Your task to perform on an android device: Go to Yahoo.com Image 0: 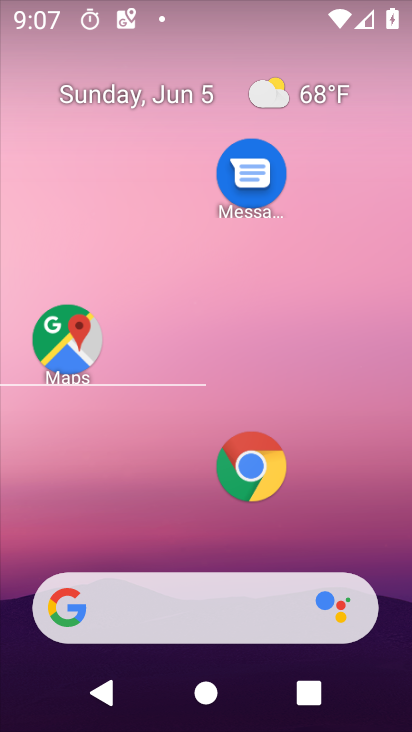
Step 0: click (296, 53)
Your task to perform on an android device: Go to Yahoo.com Image 1: 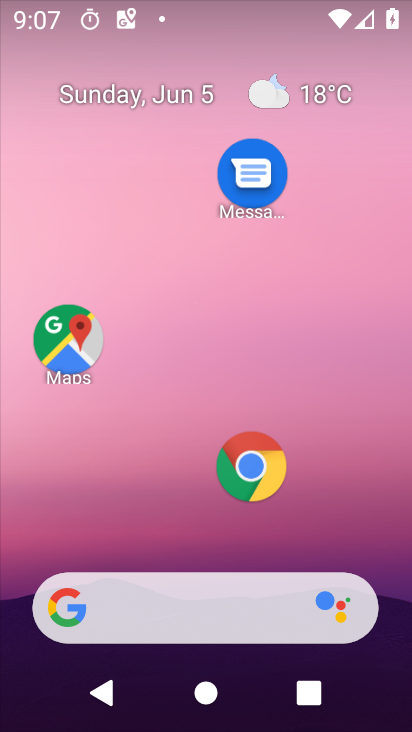
Step 1: drag from (195, 562) to (210, 145)
Your task to perform on an android device: Go to Yahoo.com Image 2: 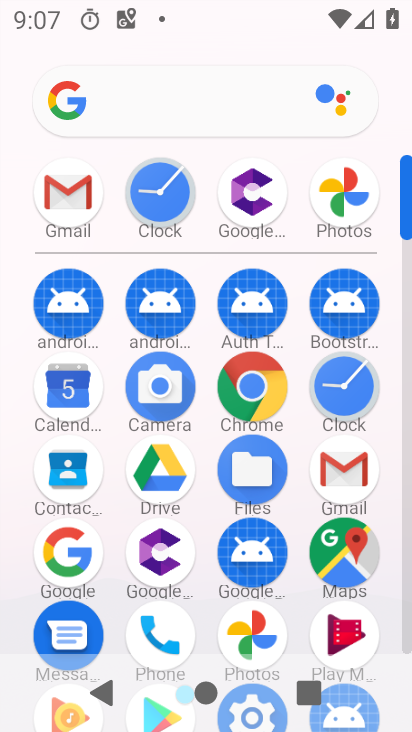
Step 2: click (219, 100)
Your task to perform on an android device: Go to Yahoo.com Image 3: 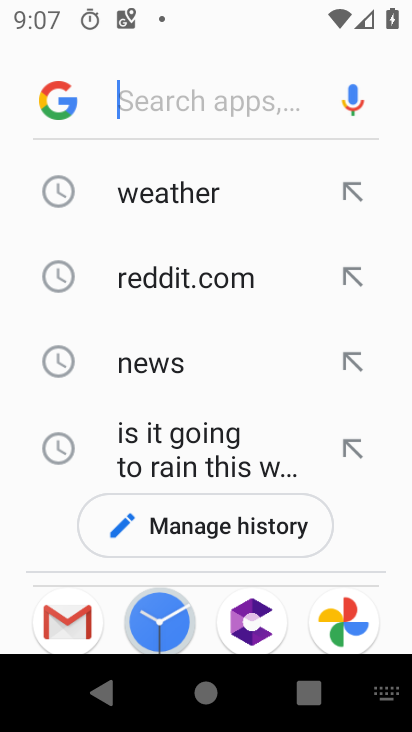
Step 3: click (169, 100)
Your task to perform on an android device: Go to Yahoo.com Image 4: 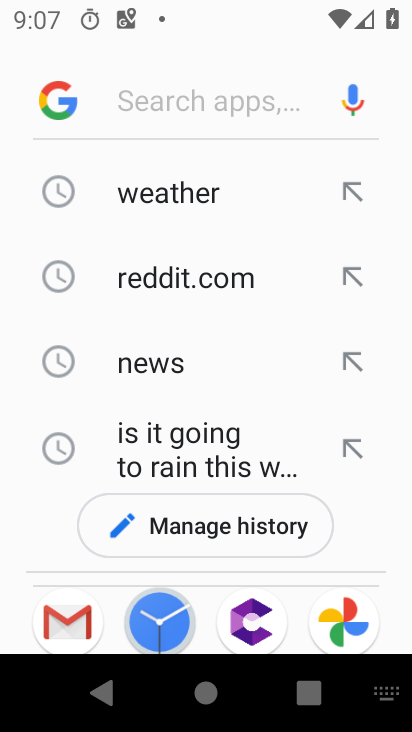
Step 4: type "Yahoo.com"
Your task to perform on an android device: Go to Yahoo.com Image 5: 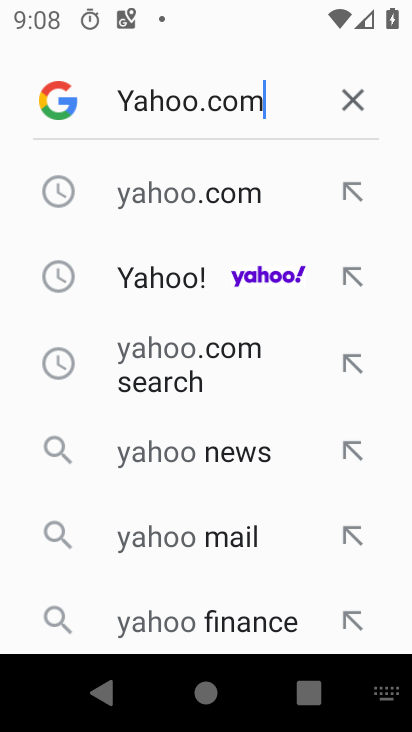
Step 5: type ""
Your task to perform on an android device: Go to Yahoo.com Image 6: 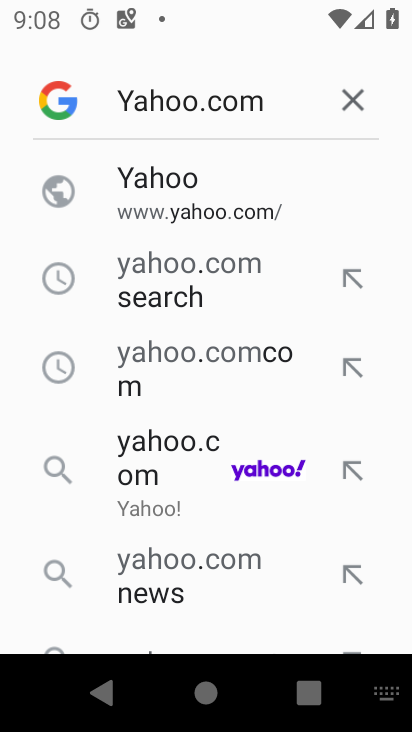
Step 6: click (187, 462)
Your task to perform on an android device: Go to Yahoo.com Image 7: 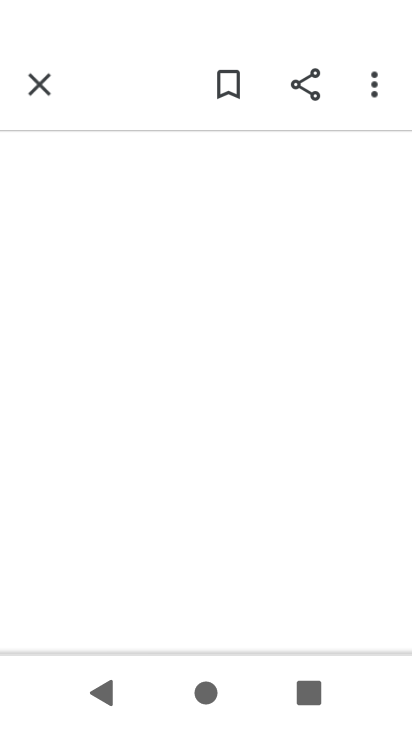
Step 7: task complete